Your task to perform on an android device: toggle javascript in the chrome app Image 0: 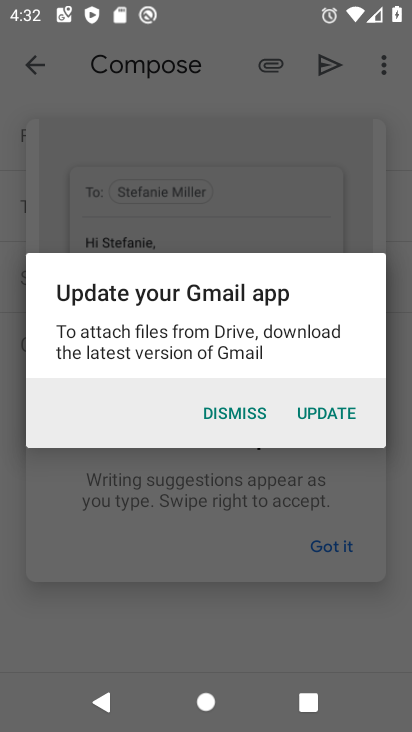
Step 0: press home button
Your task to perform on an android device: toggle javascript in the chrome app Image 1: 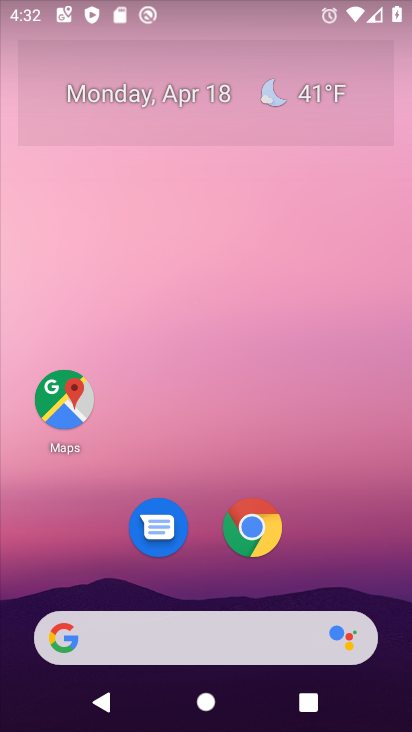
Step 1: click (253, 531)
Your task to perform on an android device: toggle javascript in the chrome app Image 2: 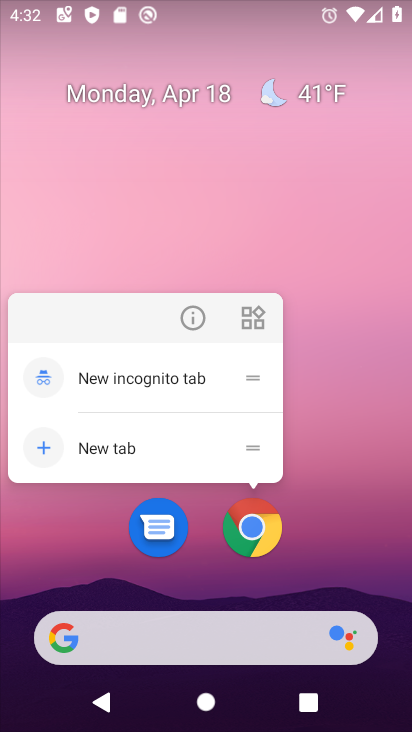
Step 2: drag from (323, 537) to (330, 132)
Your task to perform on an android device: toggle javascript in the chrome app Image 3: 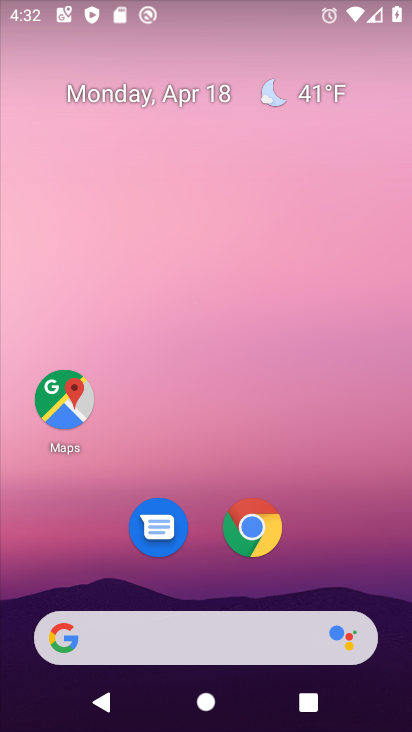
Step 3: drag from (346, 450) to (350, 110)
Your task to perform on an android device: toggle javascript in the chrome app Image 4: 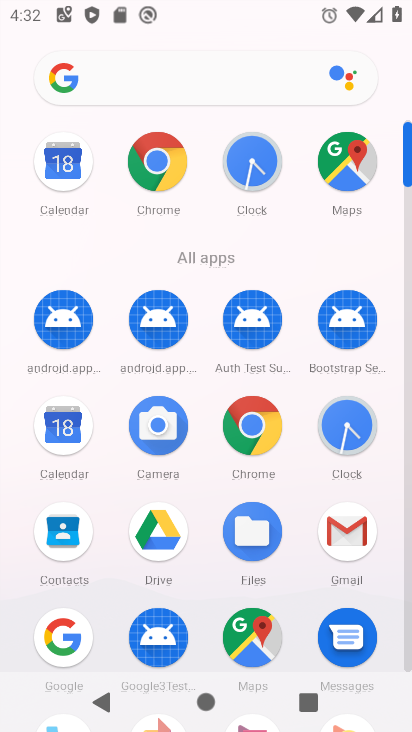
Step 4: click (263, 430)
Your task to perform on an android device: toggle javascript in the chrome app Image 5: 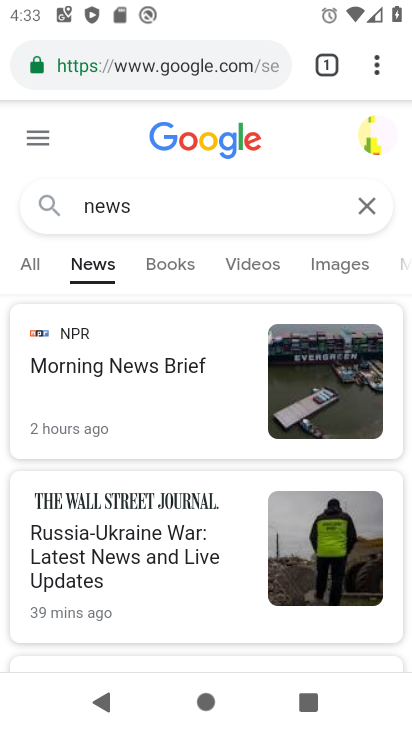
Step 5: click (376, 60)
Your task to perform on an android device: toggle javascript in the chrome app Image 6: 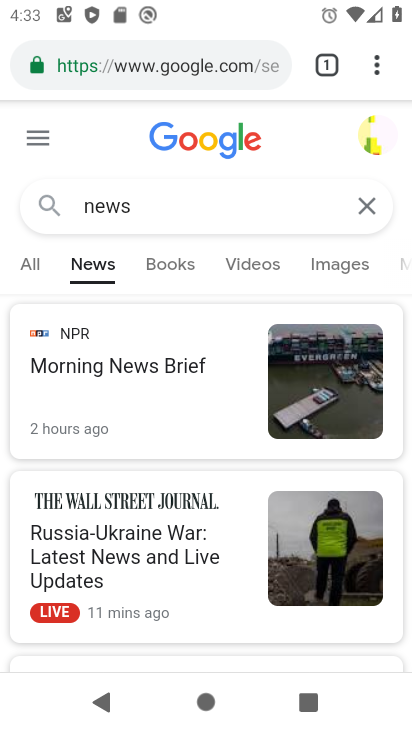
Step 6: drag from (382, 61) to (186, 596)
Your task to perform on an android device: toggle javascript in the chrome app Image 7: 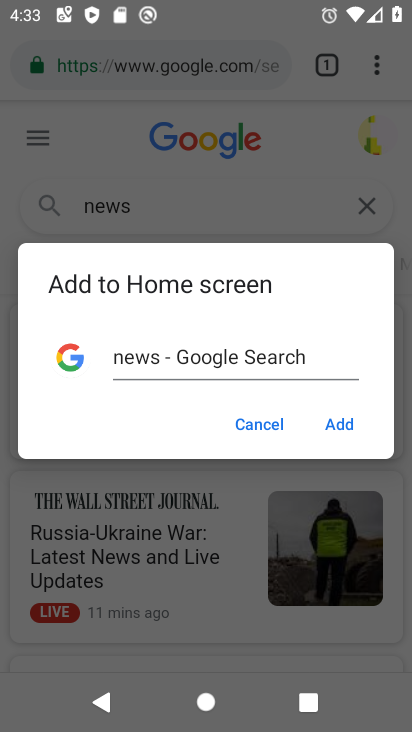
Step 7: click (260, 417)
Your task to perform on an android device: toggle javascript in the chrome app Image 8: 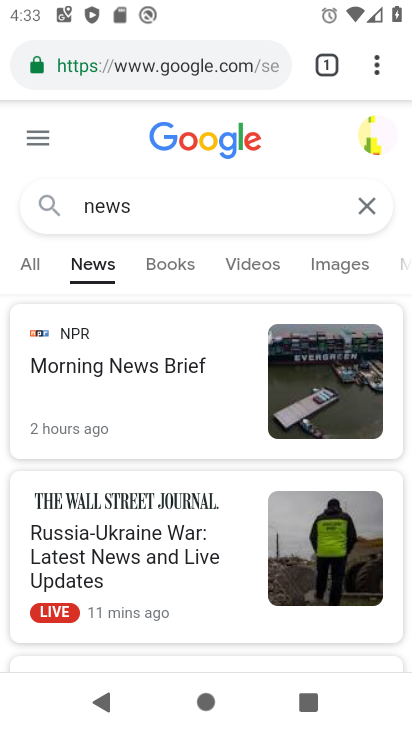
Step 8: drag from (381, 60) to (281, 581)
Your task to perform on an android device: toggle javascript in the chrome app Image 9: 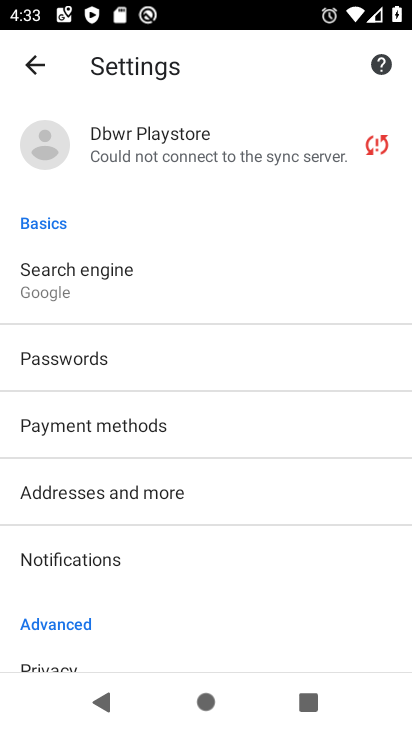
Step 9: drag from (178, 603) to (263, 235)
Your task to perform on an android device: toggle javascript in the chrome app Image 10: 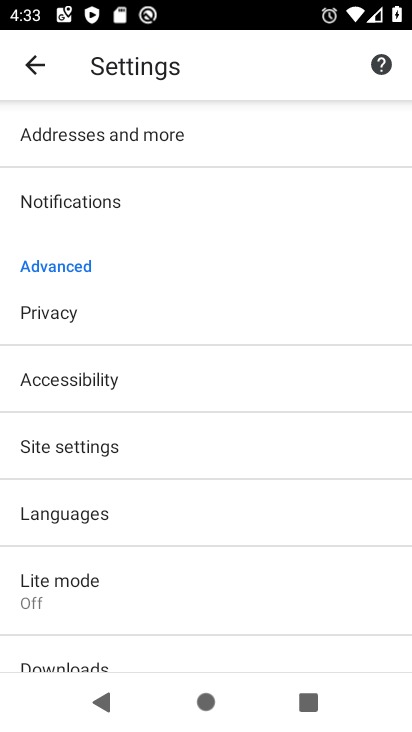
Step 10: click (90, 445)
Your task to perform on an android device: toggle javascript in the chrome app Image 11: 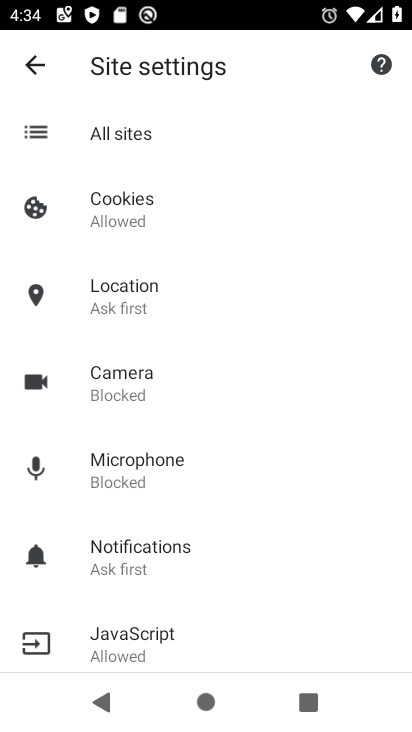
Step 11: click (148, 648)
Your task to perform on an android device: toggle javascript in the chrome app Image 12: 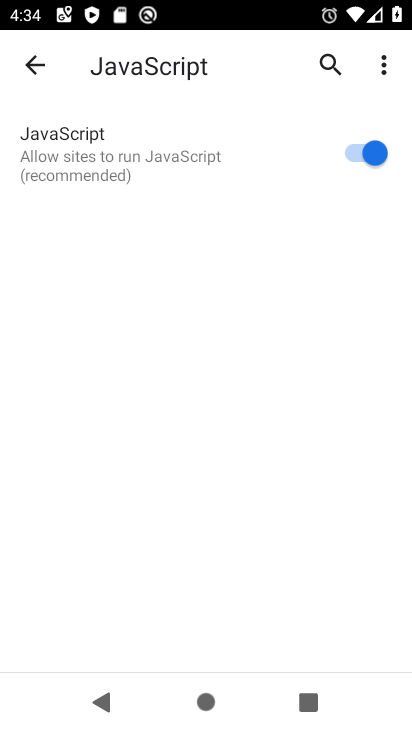
Step 12: click (374, 156)
Your task to perform on an android device: toggle javascript in the chrome app Image 13: 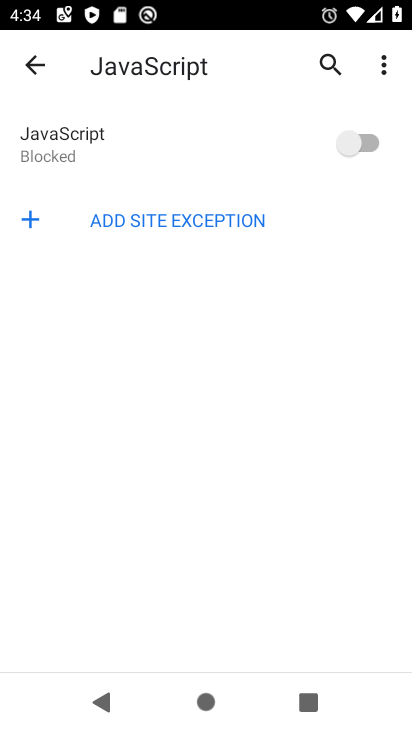
Step 13: click (356, 144)
Your task to perform on an android device: toggle javascript in the chrome app Image 14: 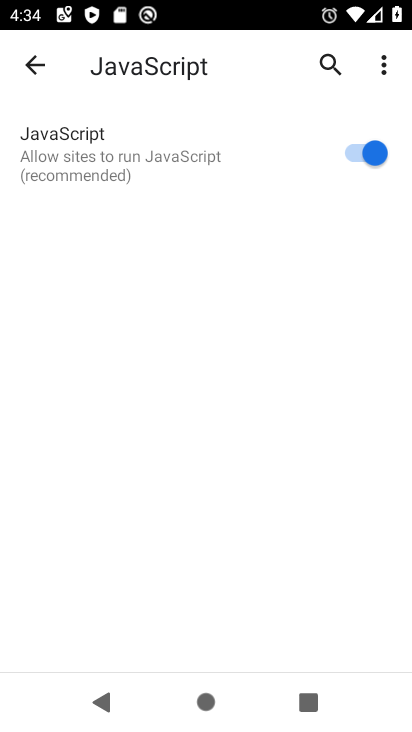
Step 14: task complete